Your task to perform on an android device: Open the Play Movies app and select the watchlist tab. Image 0: 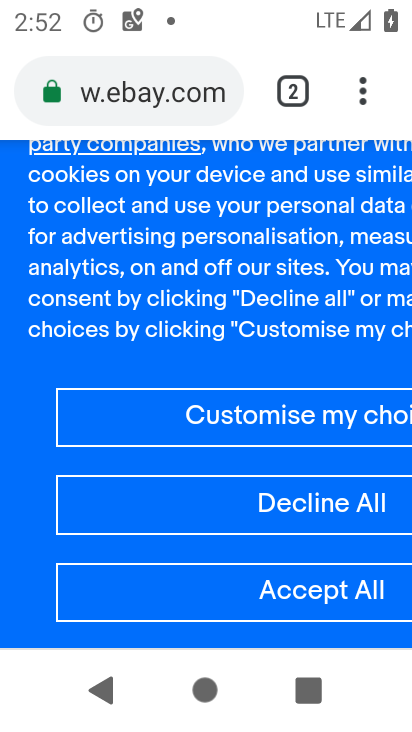
Step 0: press home button
Your task to perform on an android device: Open the Play Movies app and select the watchlist tab. Image 1: 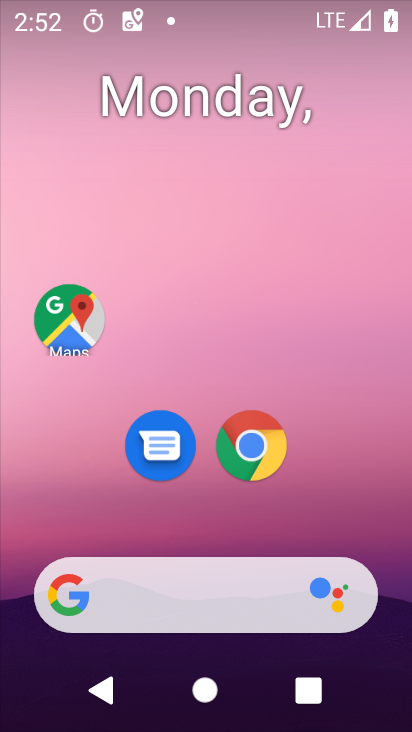
Step 1: drag from (236, 623) to (203, 104)
Your task to perform on an android device: Open the Play Movies app and select the watchlist tab. Image 2: 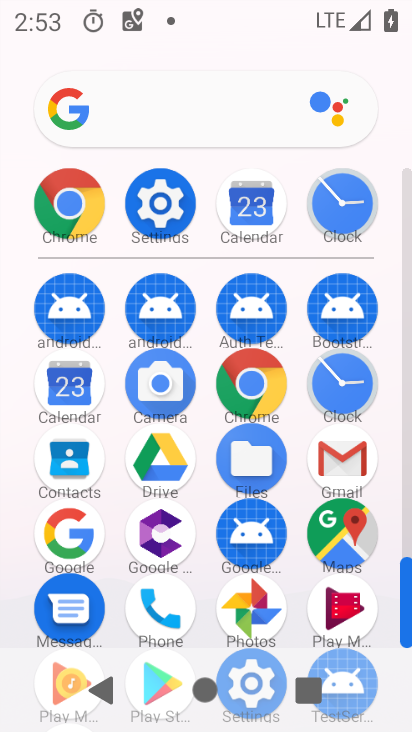
Step 2: click (345, 610)
Your task to perform on an android device: Open the Play Movies app and select the watchlist tab. Image 3: 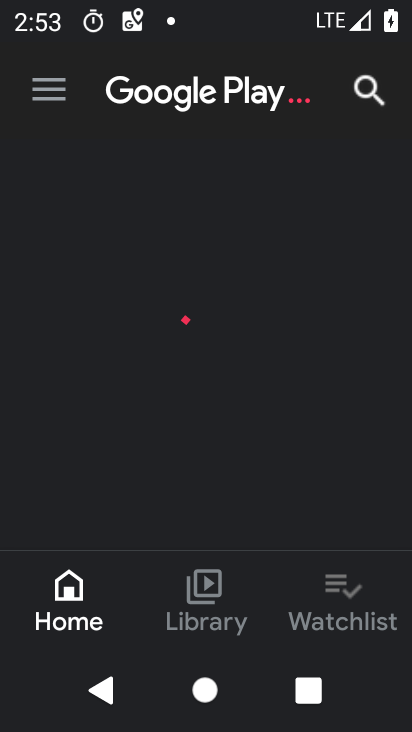
Step 3: click (347, 598)
Your task to perform on an android device: Open the Play Movies app and select the watchlist tab. Image 4: 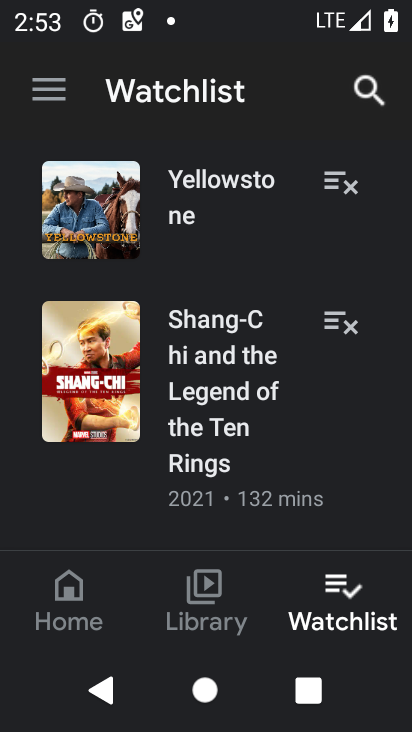
Step 4: task complete